Your task to perform on an android device: allow notifications from all sites in the chrome app Image 0: 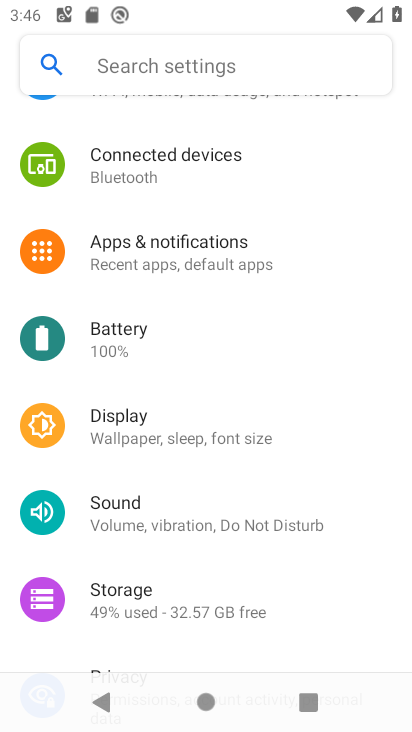
Step 0: drag from (365, 643) to (351, 207)
Your task to perform on an android device: allow notifications from all sites in the chrome app Image 1: 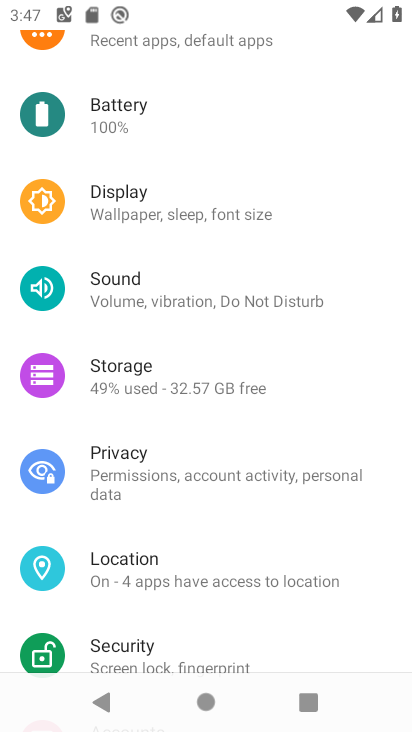
Step 1: press back button
Your task to perform on an android device: allow notifications from all sites in the chrome app Image 2: 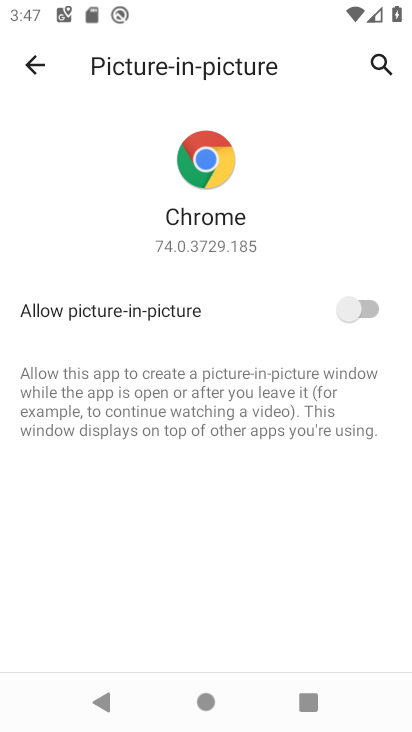
Step 2: press back button
Your task to perform on an android device: allow notifications from all sites in the chrome app Image 3: 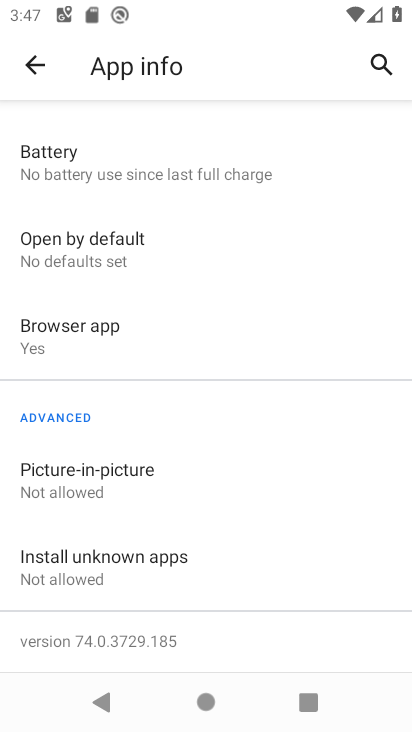
Step 3: press back button
Your task to perform on an android device: allow notifications from all sites in the chrome app Image 4: 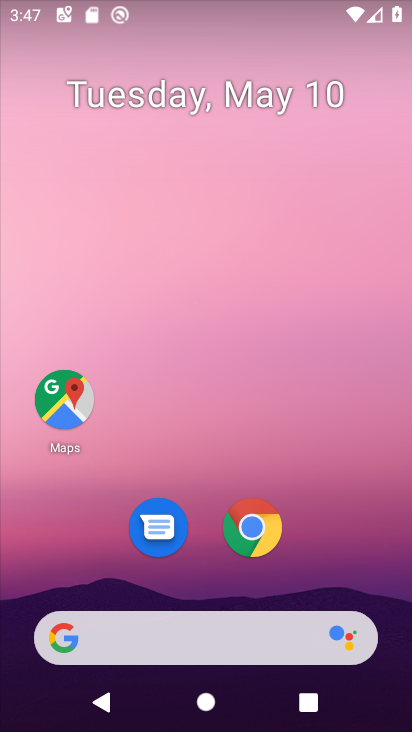
Step 4: click (346, 211)
Your task to perform on an android device: allow notifications from all sites in the chrome app Image 5: 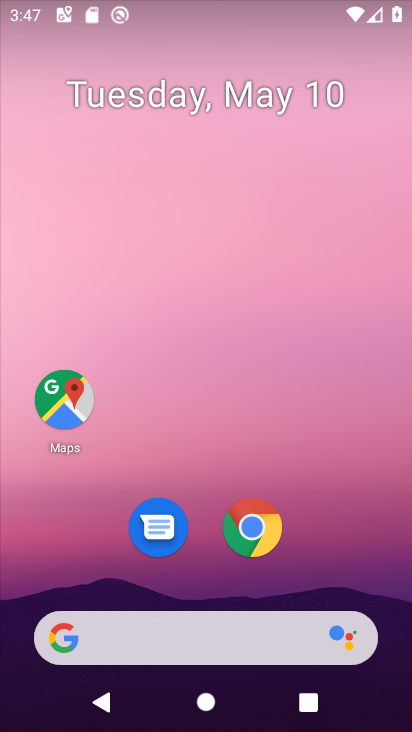
Step 5: drag from (392, 490) to (399, 267)
Your task to perform on an android device: allow notifications from all sites in the chrome app Image 6: 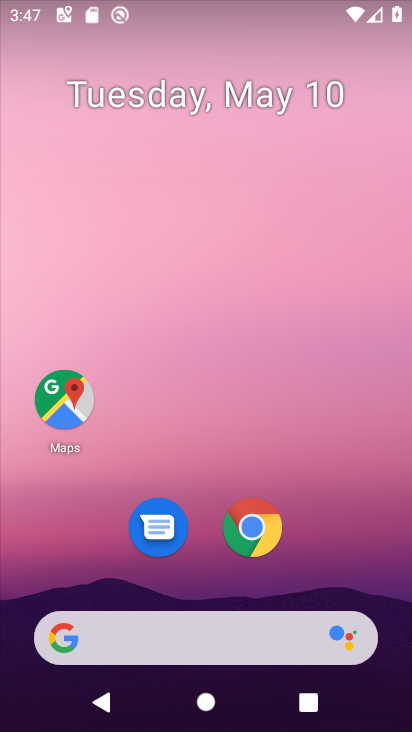
Step 6: drag from (387, 575) to (347, 178)
Your task to perform on an android device: allow notifications from all sites in the chrome app Image 7: 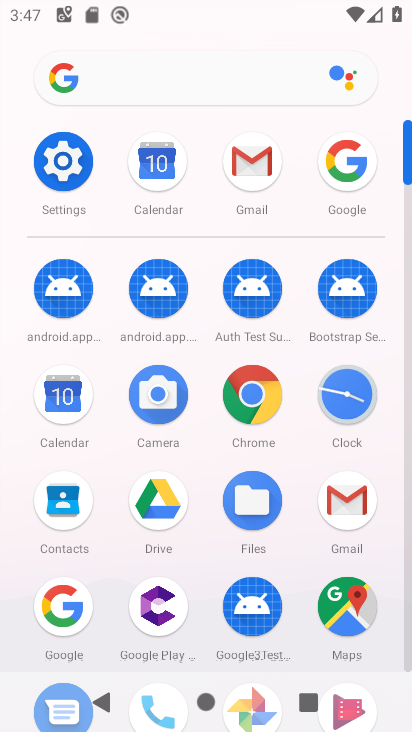
Step 7: click (251, 399)
Your task to perform on an android device: allow notifications from all sites in the chrome app Image 8: 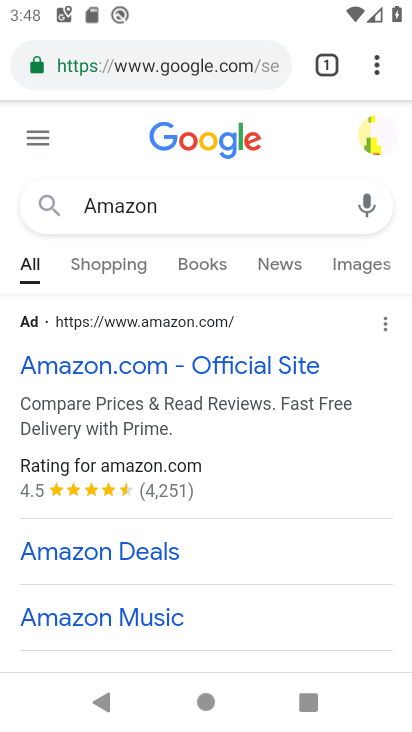
Step 8: click (373, 62)
Your task to perform on an android device: allow notifications from all sites in the chrome app Image 9: 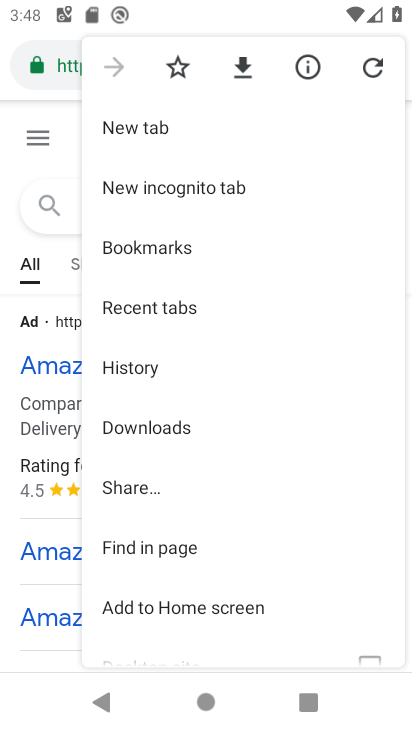
Step 9: drag from (310, 589) to (303, 394)
Your task to perform on an android device: allow notifications from all sites in the chrome app Image 10: 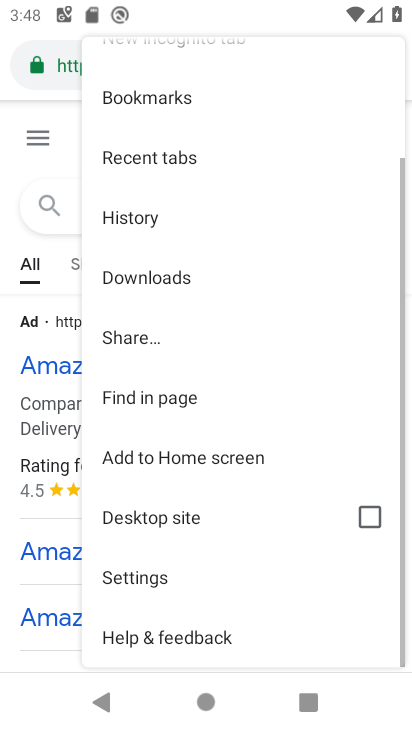
Step 10: click (146, 576)
Your task to perform on an android device: allow notifications from all sites in the chrome app Image 11: 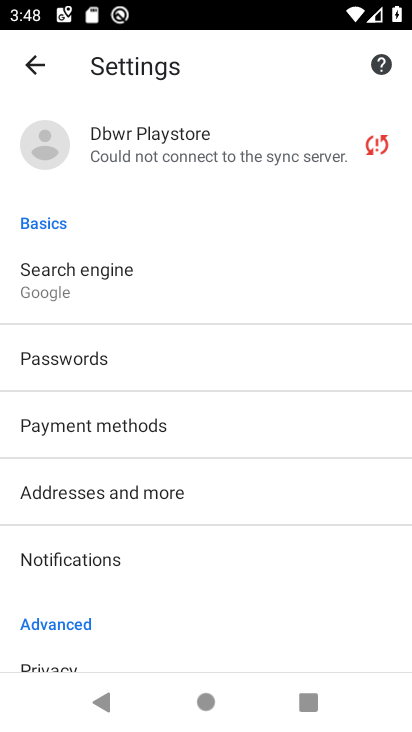
Step 11: drag from (227, 635) to (232, 406)
Your task to perform on an android device: allow notifications from all sites in the chrome app Image 12: 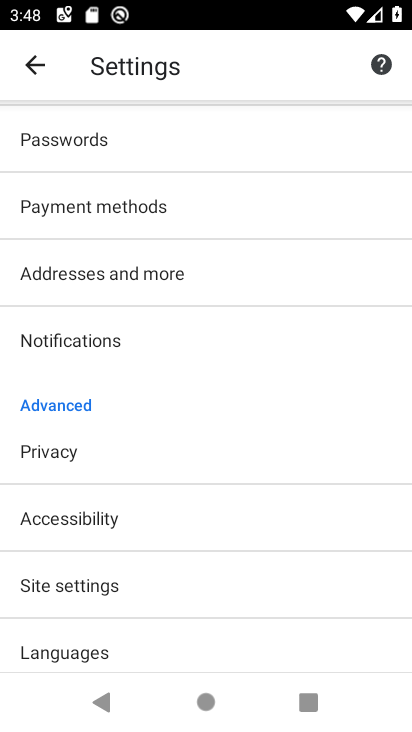
Step 12: click (89, 594)
Your task to perform on an android device: allow notifications from all sites in the chrome app Image 13: 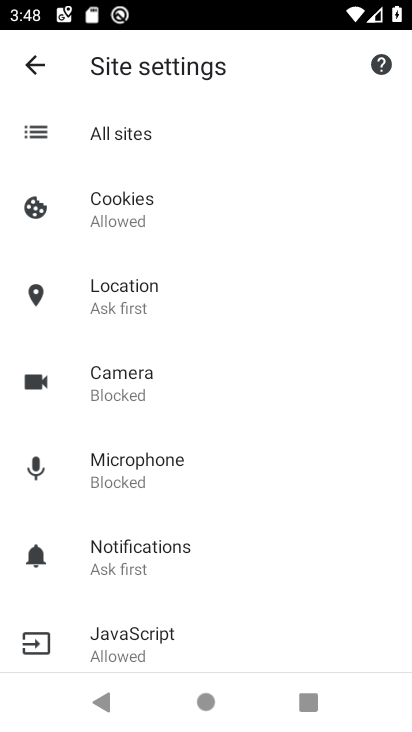
Step 13: task complete